Your task to perform on an android device: open app "Adobe Express: Graphic Design" Image 0: 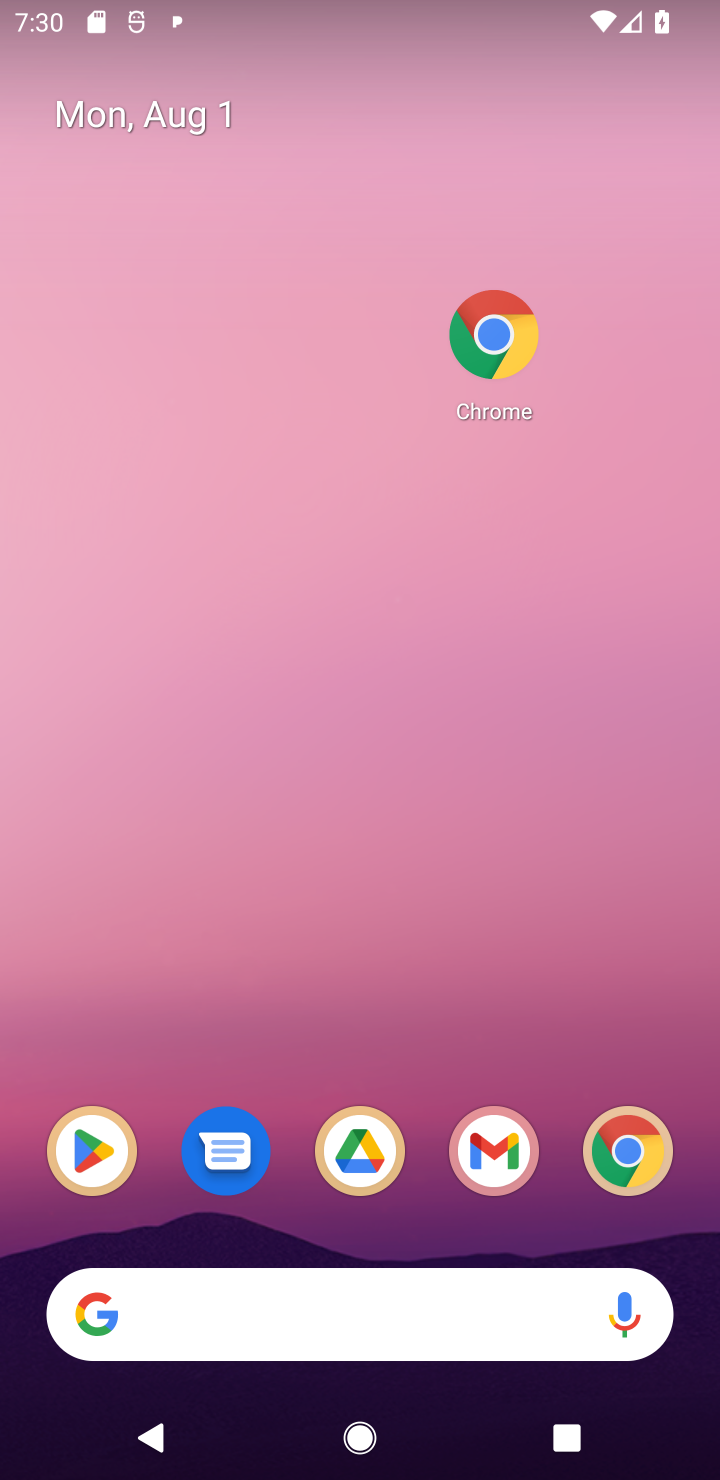
Step 0: click (101, 1150)
Your task to perform on an android device: open app "Adobe Express: Graphic Design" Image 1: 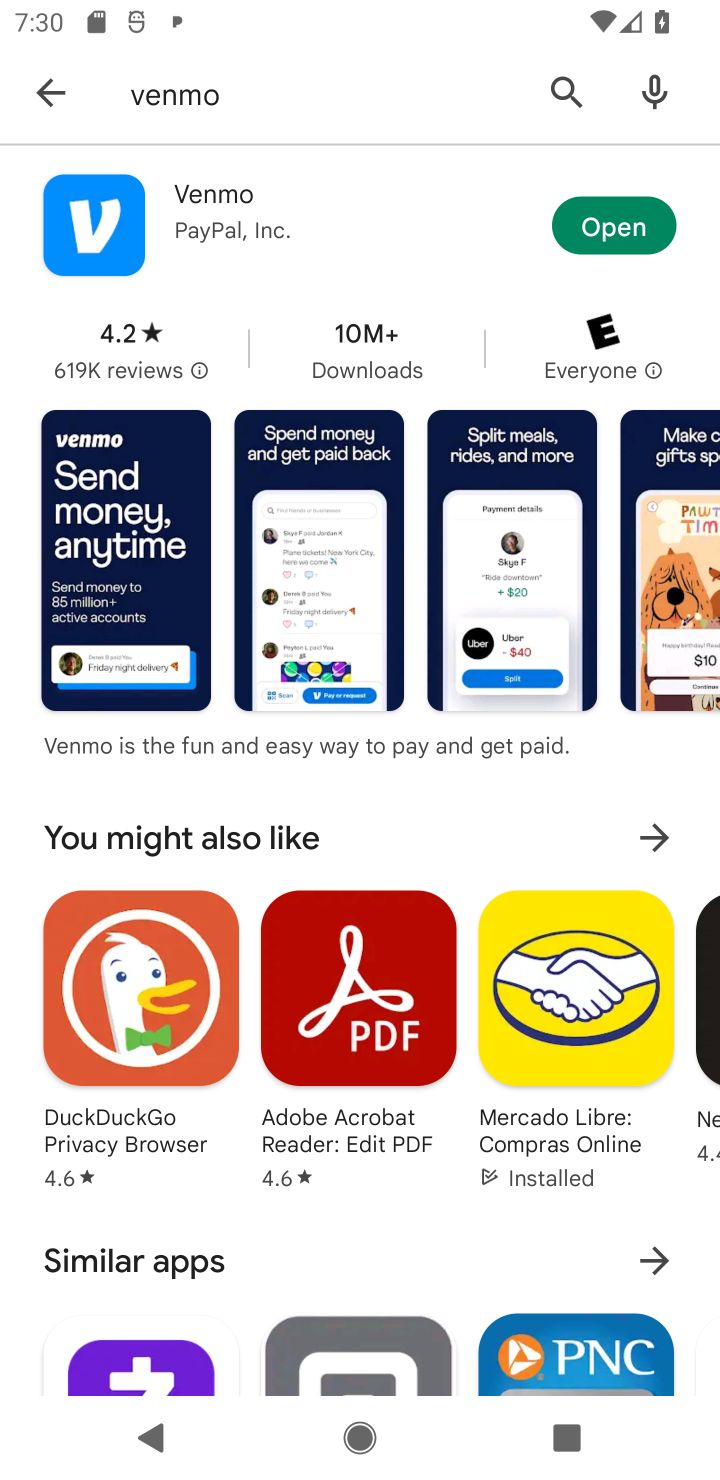
Step 1: click (551, 89)
Your task to perform on an android device: open app "Adobe Express: Graphic Design" Image 2: 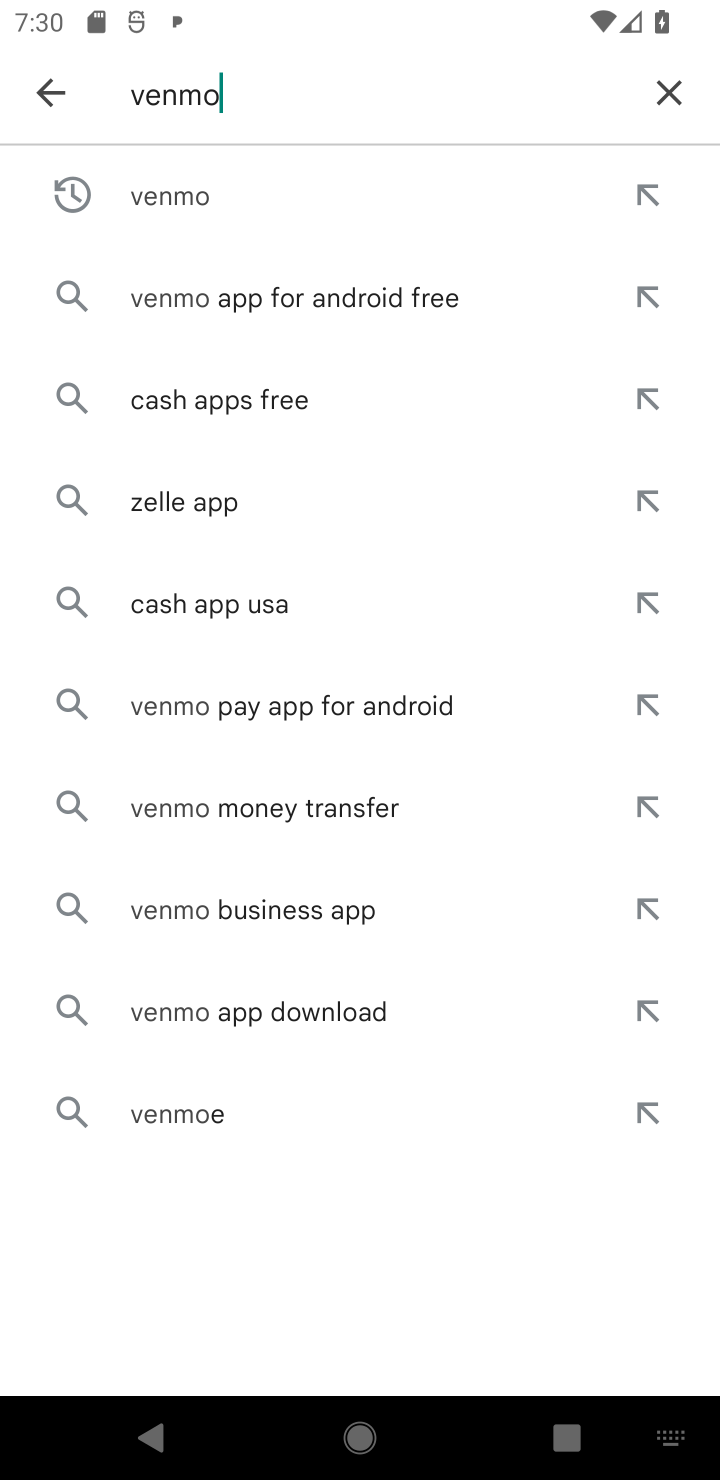
Step 2: click (661, 101)
Your task to perform on an android device: open app "Adobe Express: Graphic Design" Image 3: 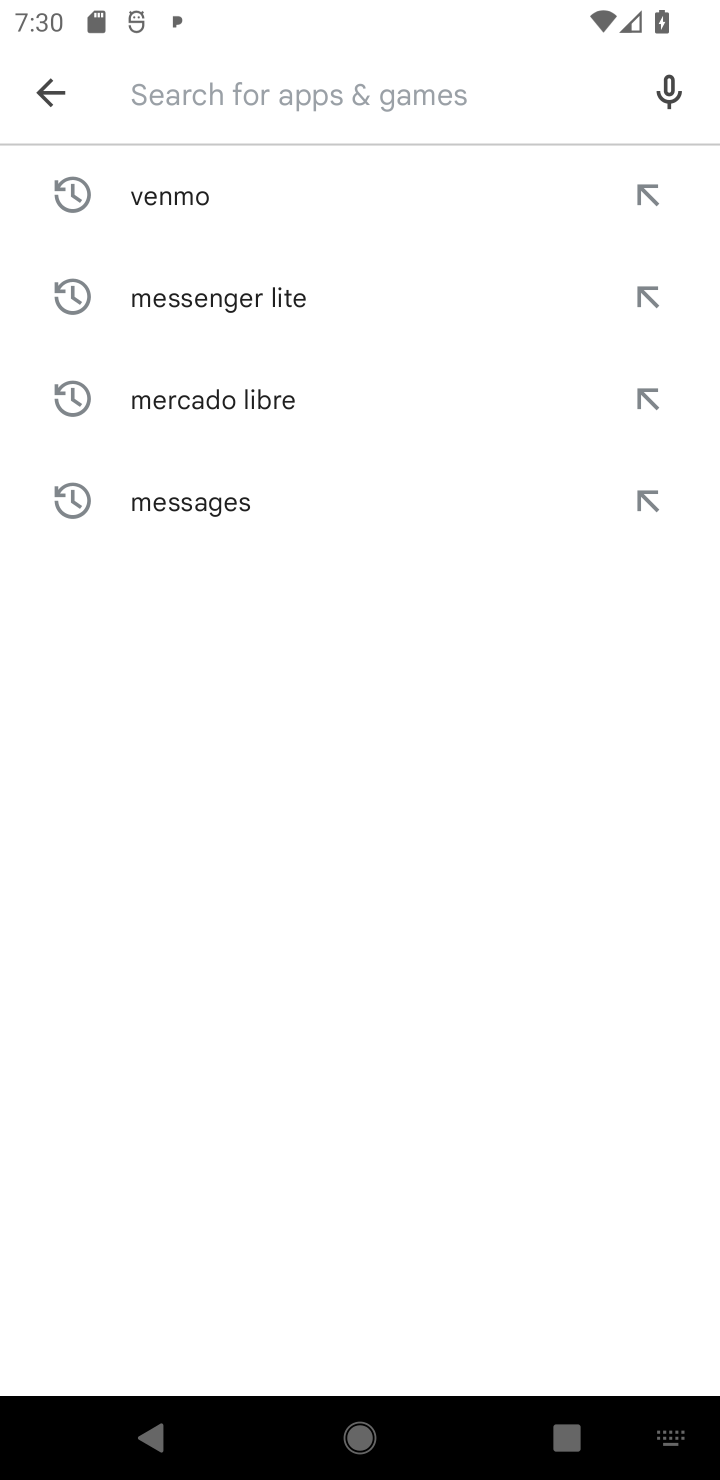
Step 3: type "Adobe Express: Graphic Design"
Your task to perform on an android device: open app "Adobe Express: Graphic Design" Image 4: 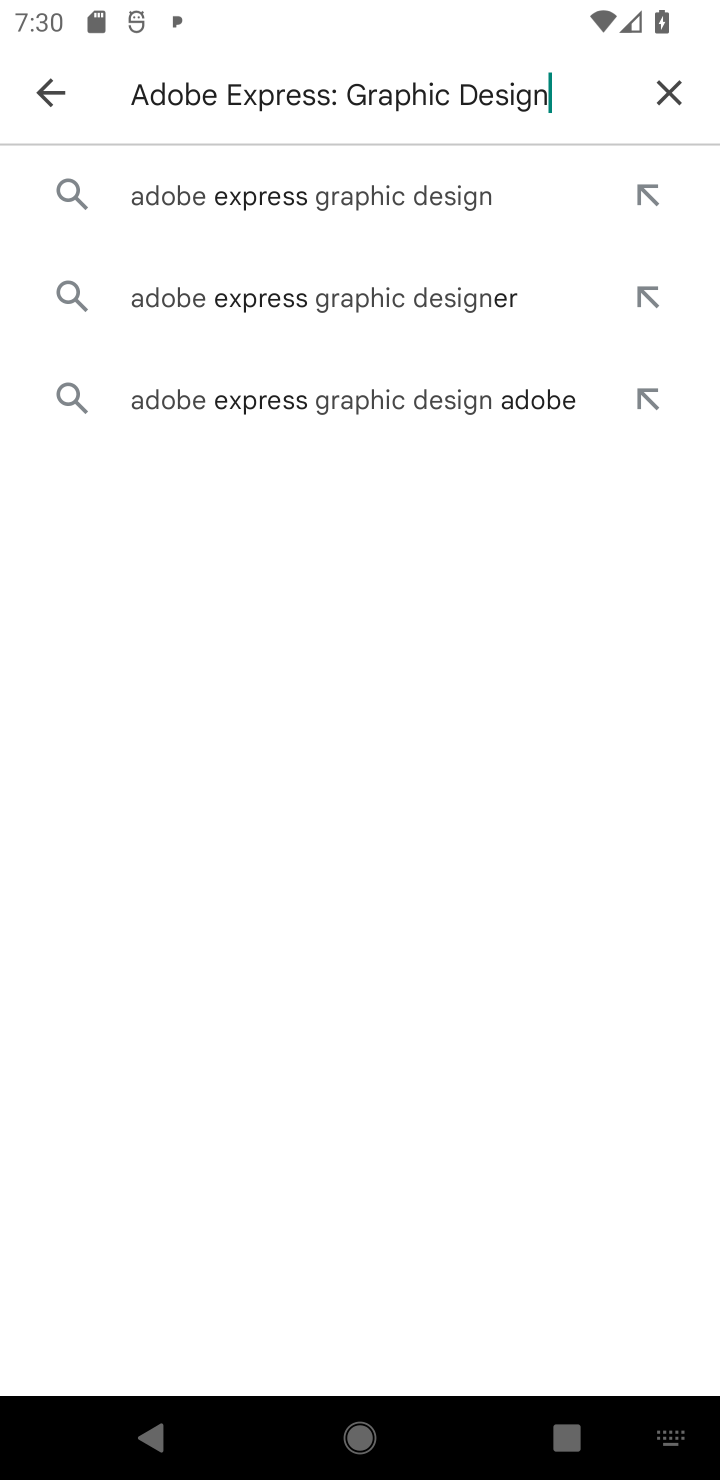
Step 4: click (220, 206)
Your task to perform on an android device: open app "Adobe Express: Graphic Design" Image 5: 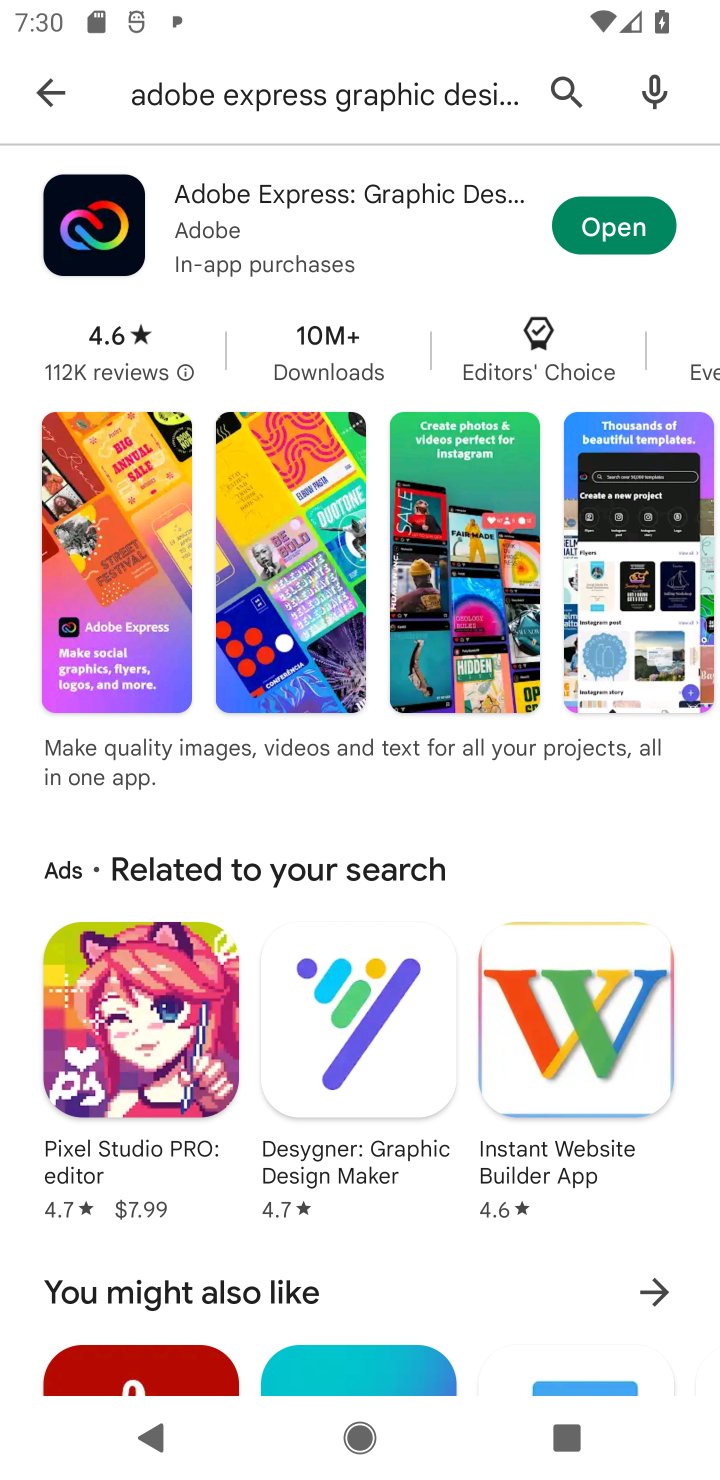
Step 5: click (615, 234)
Your task to perform on an android device: open app "Adobe Express: Graphic Design" Image 6: 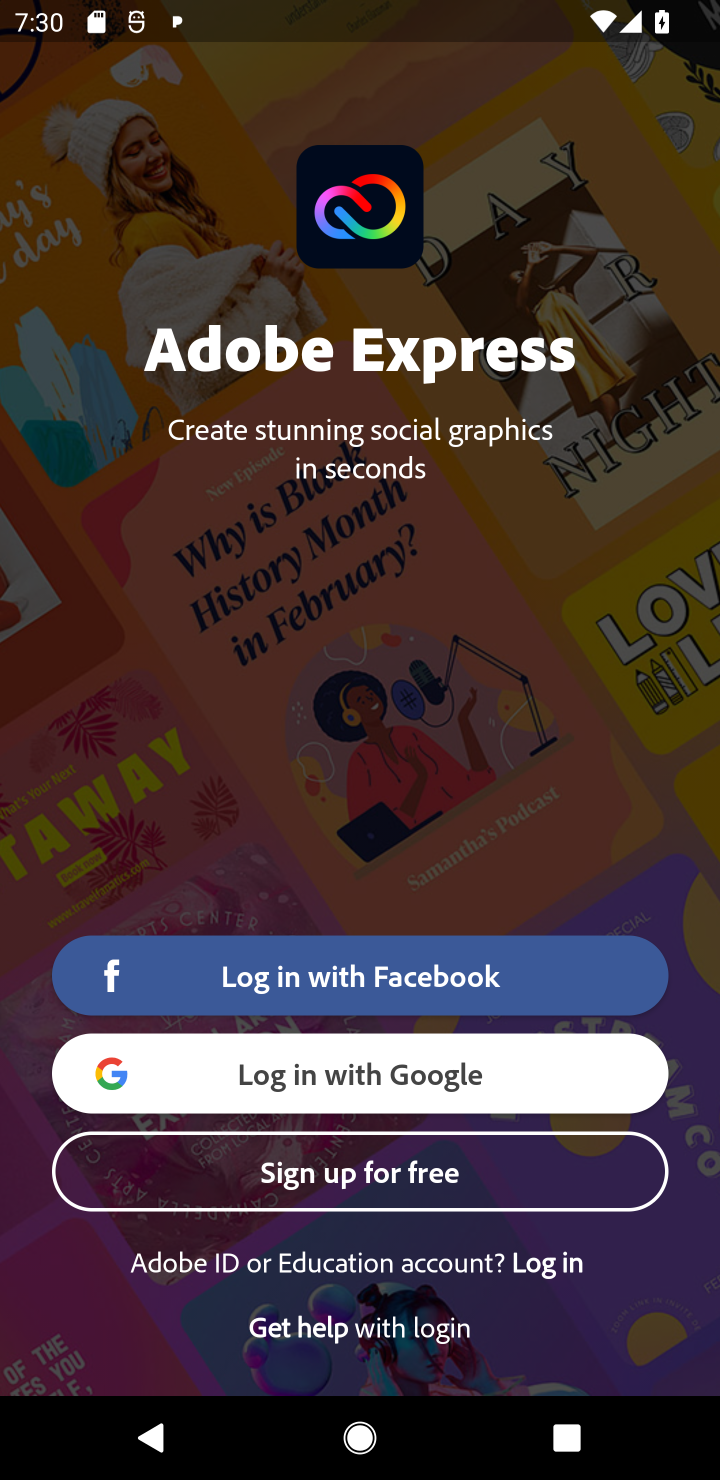
Step 6: task complete